Your task to perform on an android device: Open the calendar app, open the side menu, and click the "Day" option Image 0: 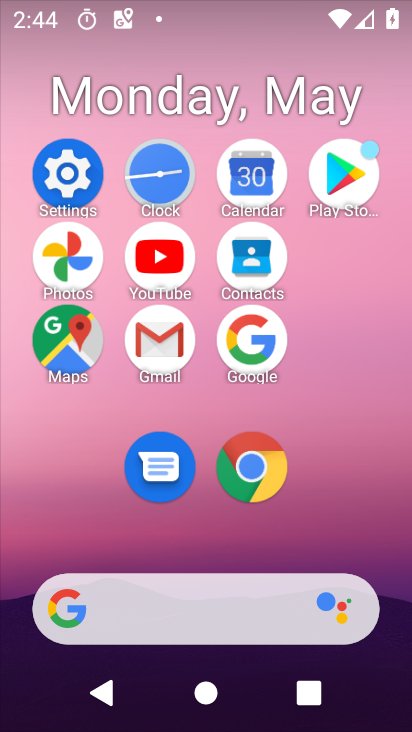
Step 0: click (257, 186)
Your task to perform on an android device: Open the calendar app, open the side menu, and click the "Day" option Image 1: 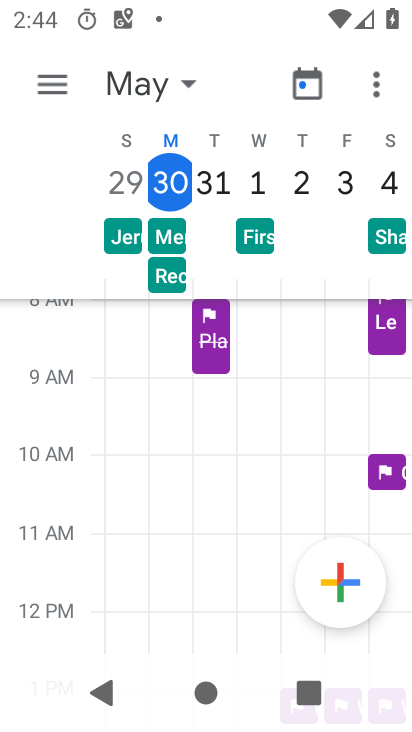
Step 1: click (58, 95)
Your task to perform on an android device: Open the calendar app, open the side menu, and click the "Day" option Image 2: 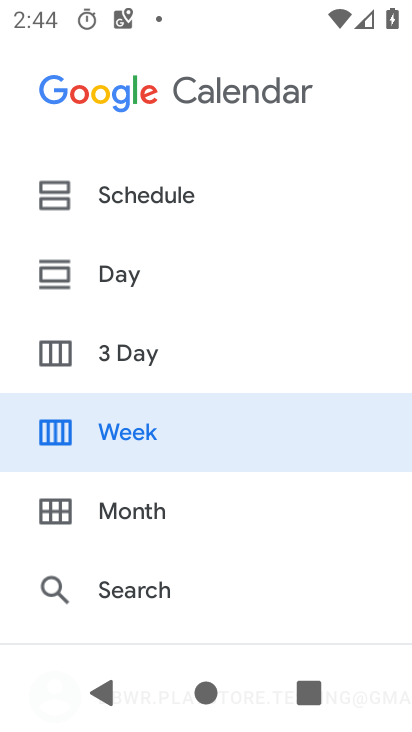
Step 2: click (127, 246)
Your task to perform on an android device: Open the calendar app, open the side menu, and click the "Day" option Image 3: 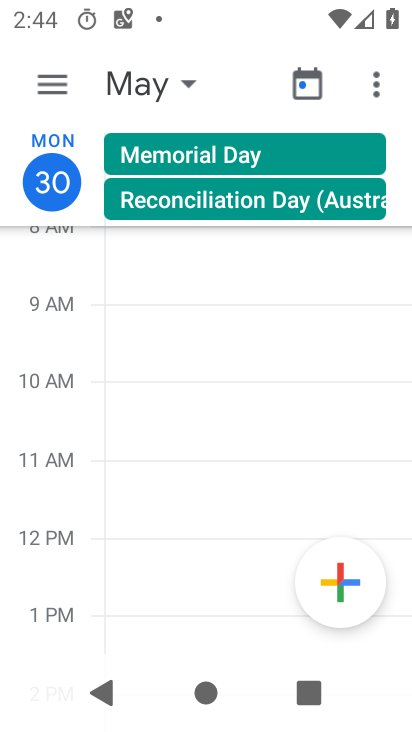
Step 3: task complete